Your task to perform on an android device: Open Amazon Image 0: 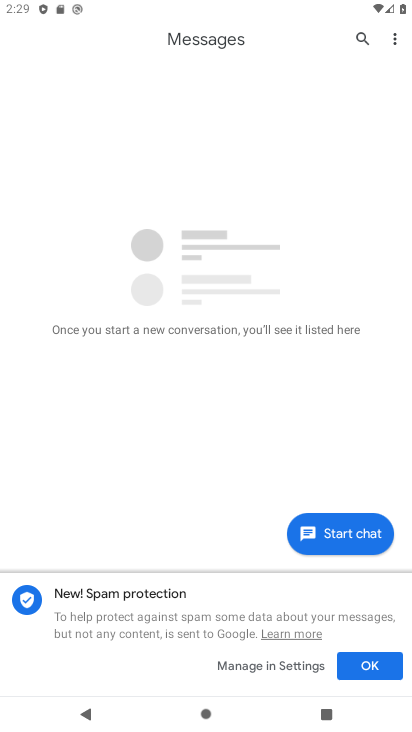
Step 0: press home button
Your task to perform on an android device: Open Amazon Image 1: 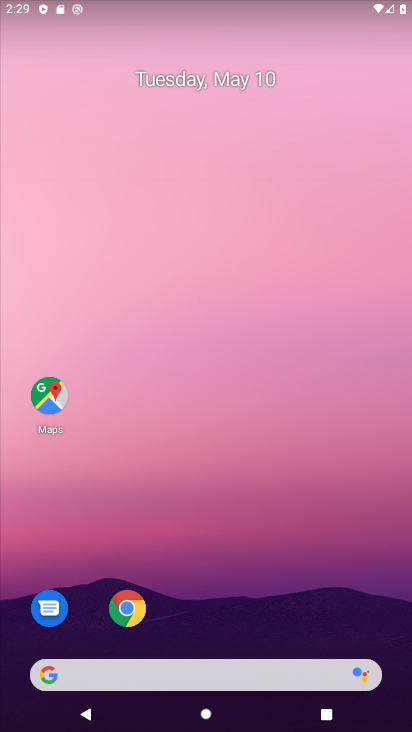
Step 1: click (130, 609)
Your task to perform on an android device: Open Amazon Image 2: 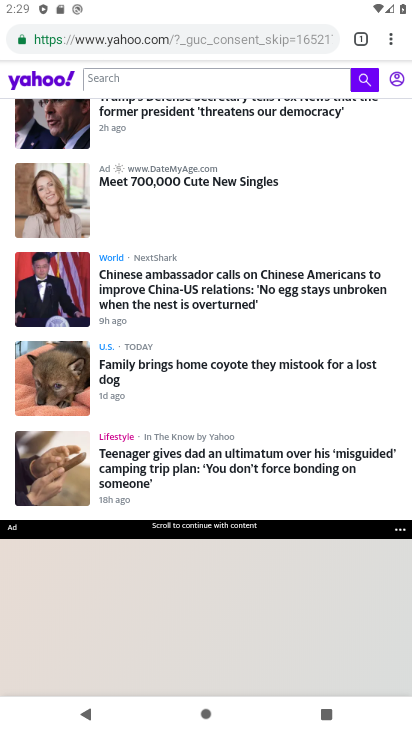
Step 2: click (171, 35)
Your task to perform on an android device: Open Amazon Image 3: 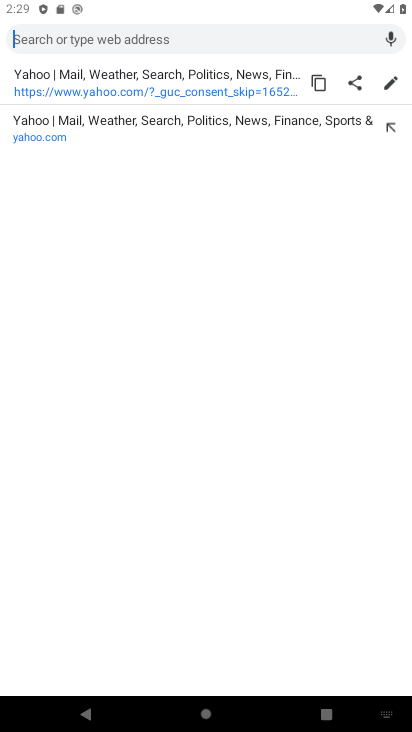
Step 3: type "amazon"
Your task to perform on an android device: Open Amazon Image 4: 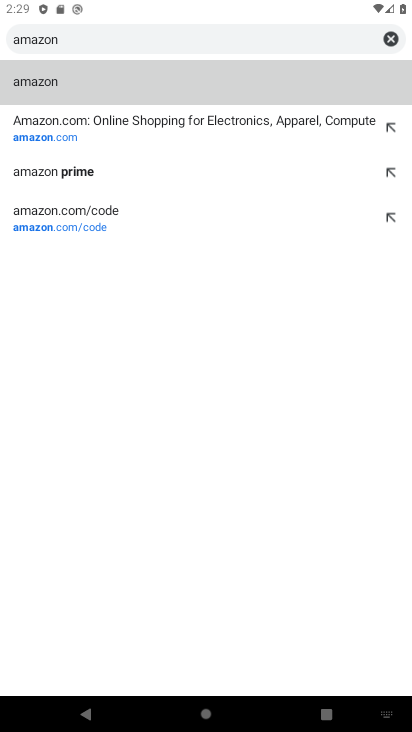
Step 4: click (34, 125)
Your task to perform on an android device: Open Amazon Image 5: 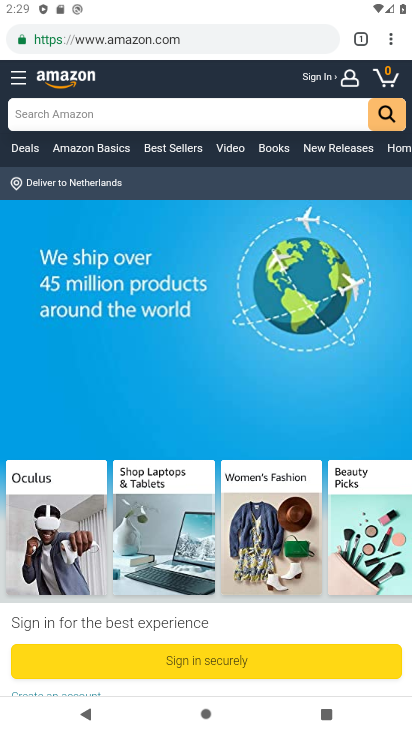
Step 5: task complete